Your task to perform on an android device: Open battery settings Image 0: 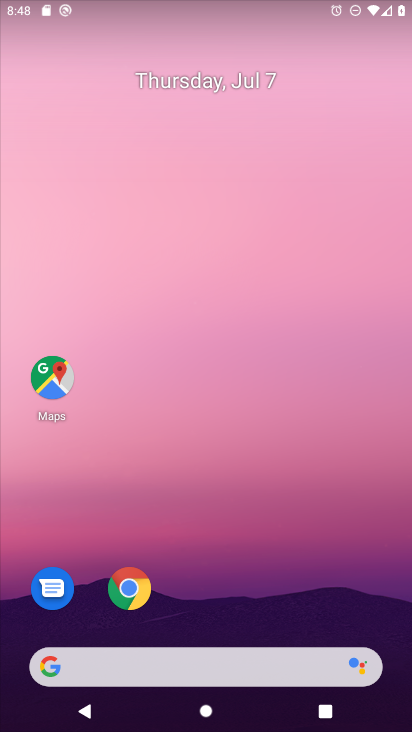
Step 0: drag from (250, 656) to (228, 301)
Your task to perform on an android device: Open battery settings Image 1: 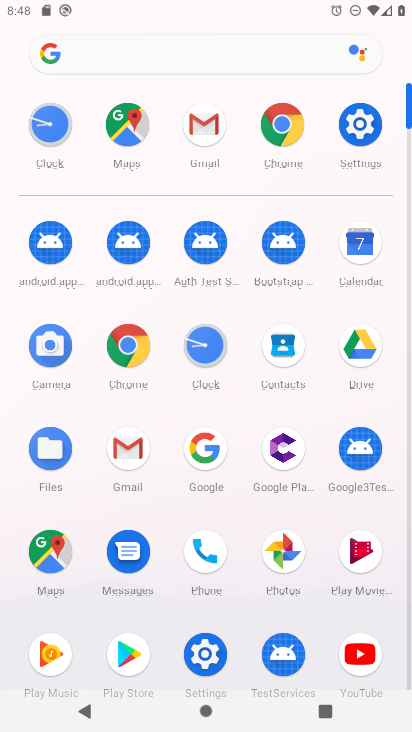
Step 1: click (362, 122)
Your task to perform on an android device: Open battery settings Image 2: 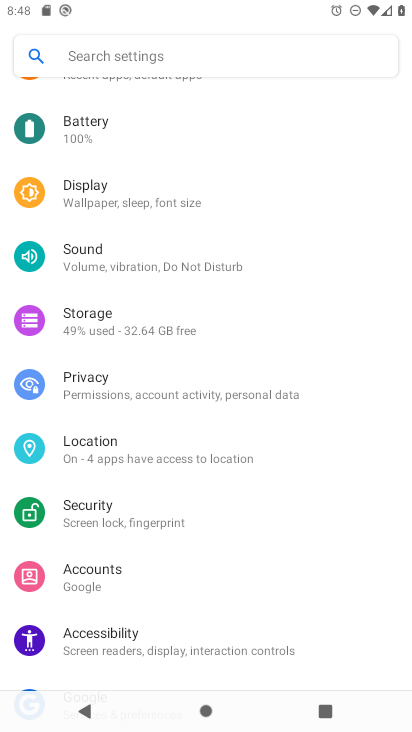
Step 2: click (112, 137)
Your task to perform on an android device: Open battery settings Image 3: 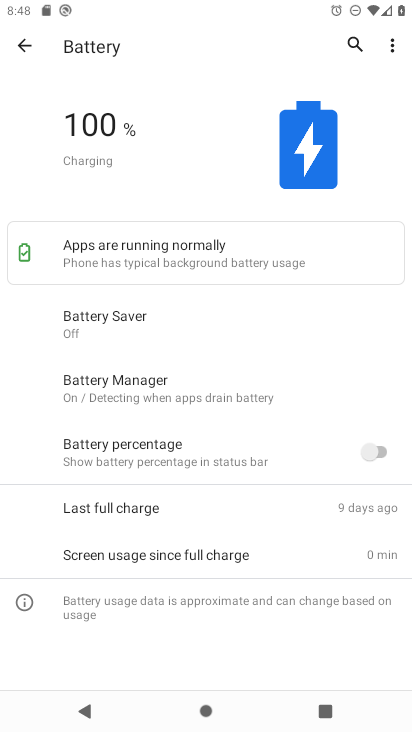
Step 3: task complete